Your task to perform on an android device: Open the calendar app, open the side menu, and click the "Day" option Image 0: 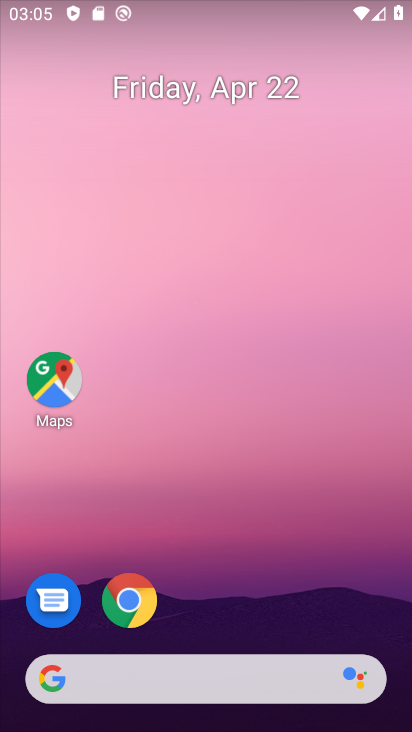
Step 0: drag from (229, 593) to (245, 120)
Your task to perform on an android device: Open the calendar app, open the side menu, and click the "Day" option Image 1: 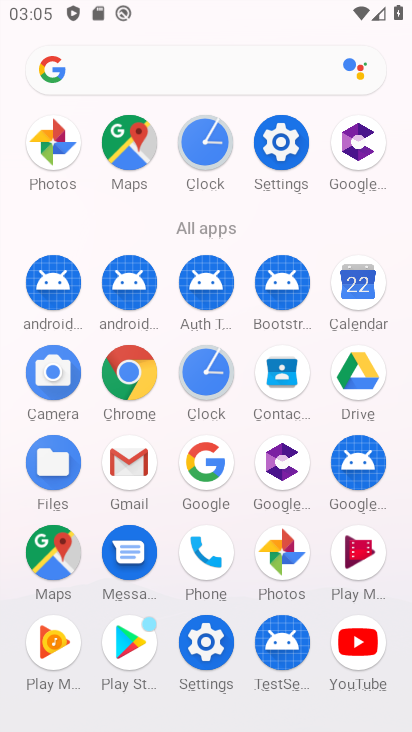
Step 1: click (359, 305)
Your task to perform on an android device: Open the calendar app, open the side menu, and click the "Day" option Image 2: 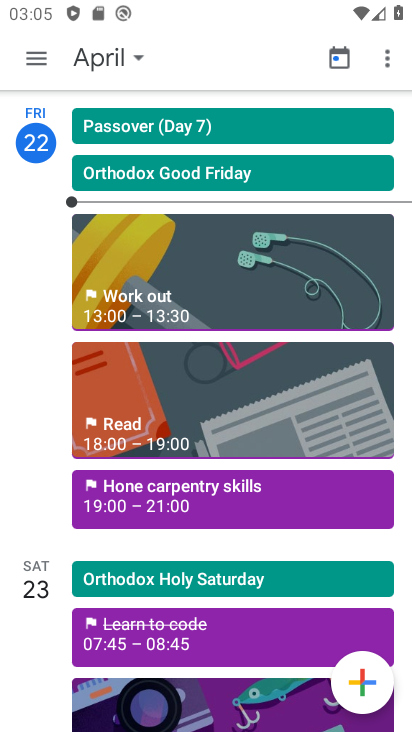
Step 2: click (30, 58)
Your task to perform on an android device: Open the calendar app, open the side menu, and click the "Day" option Image 3: 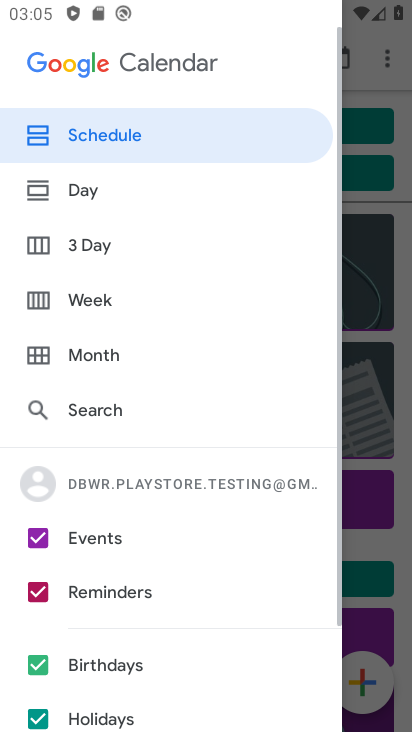
Step 3: click (100, 189)
Your task to perform on an android device: Open the calendar app, open the side menu, and click the "Day" option Image 4: 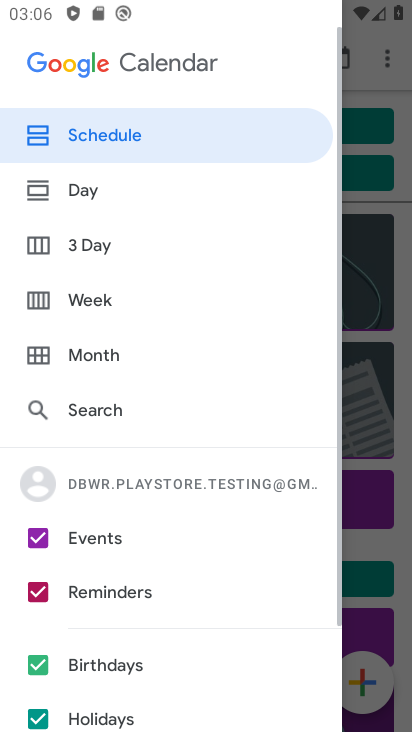
Step 4: click (81, 195)
Your task to perform on an android device: Open the calendar app, open the side menu, and click the "Day" option Image 5: 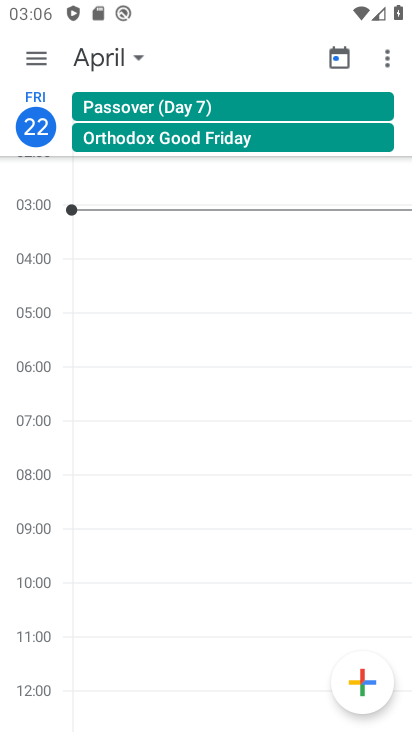
Step 5: task complete